Your task to perform on an android device: allow notifications from all sites in the chrome app Image 0: 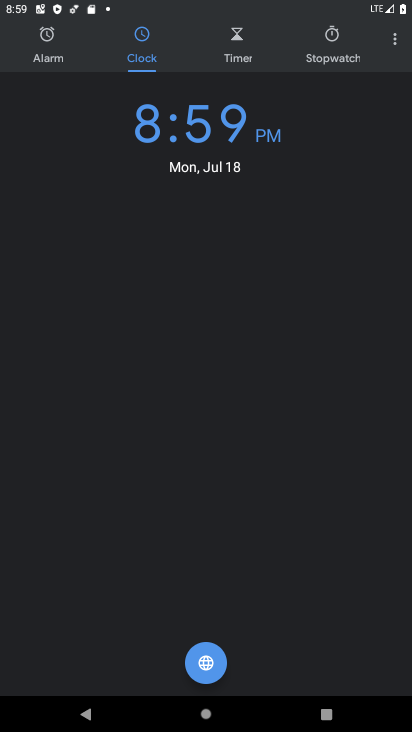
Step 0: press home button
Your task to perform on an android device: allow notifications from all sites in the chrome app Image 1: 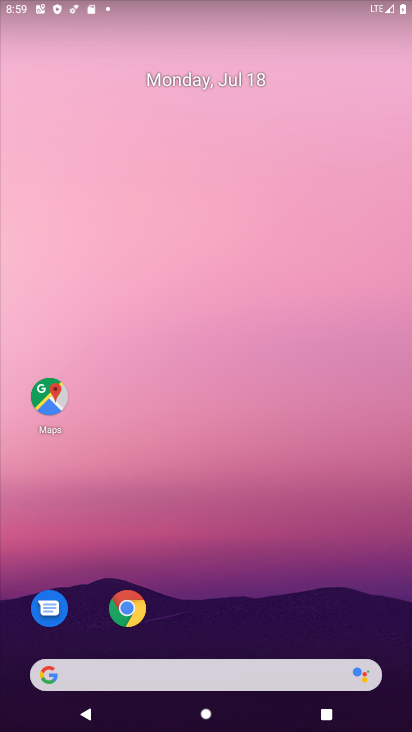
Step 1: drag from (35, 621) to (254, 60)
Your task to perform on an android device: allow notifications from all sites in the chrome app Image 2: 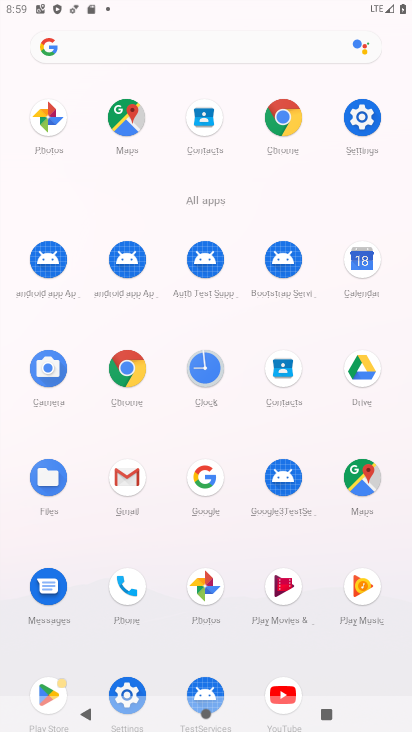
Step 2: click (127, 705)
Your task to perform on an android device: allow notifications from all sites in the chrome app Image 3: 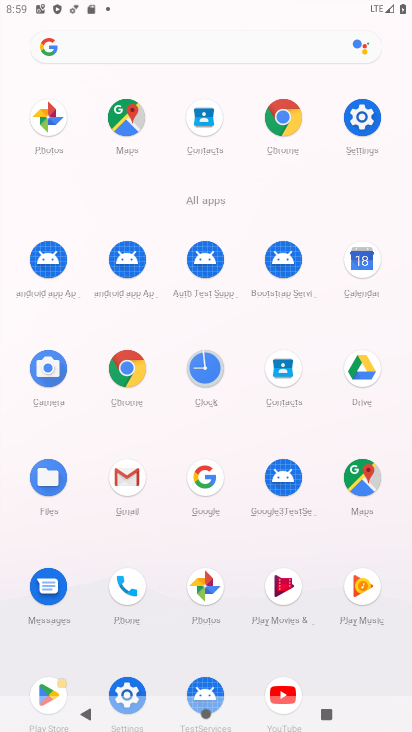
Step 3: click (282, 124)
Your task to perform on an android device: allow notifications from all sites in the chrome app Image 4: 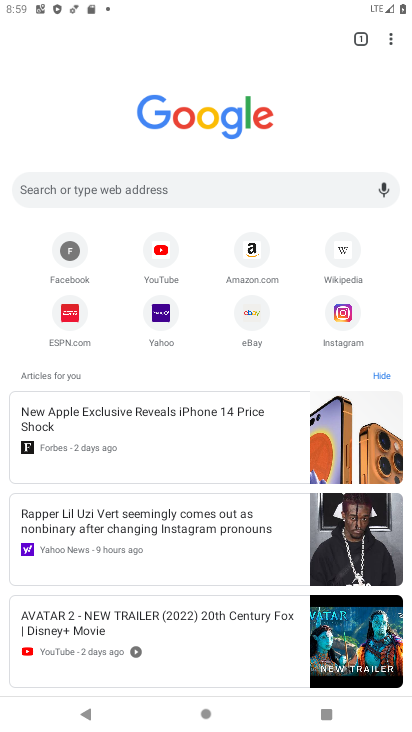
Step 4: click (388, 28)
Your task to perform on an android device: allow notifications from all sites in the chrome app Image 5: 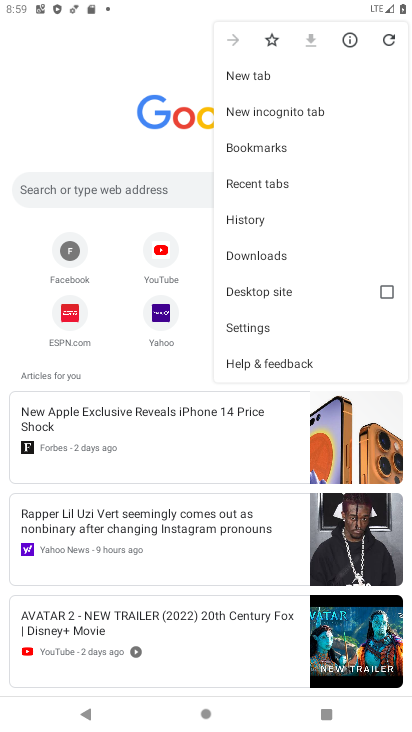
Step 5: click (240, 328)
Your task to perform on an android device: allow notifications from all sites in the chrome app Image 6: 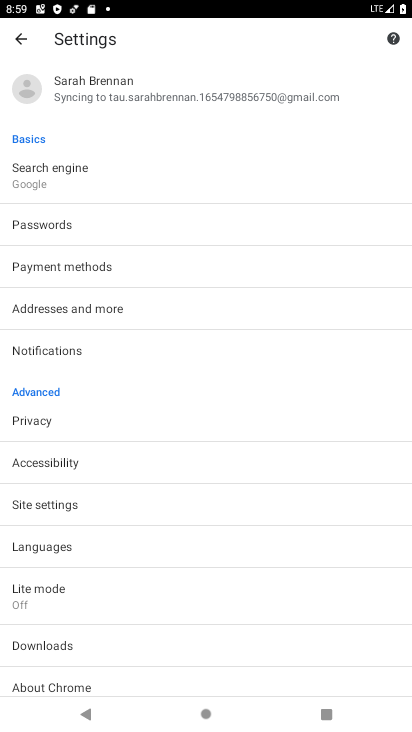
Step 6: click (71, 504)
Your task to perform on an android device: allow notifications from all sites in the chrome app Image 7: 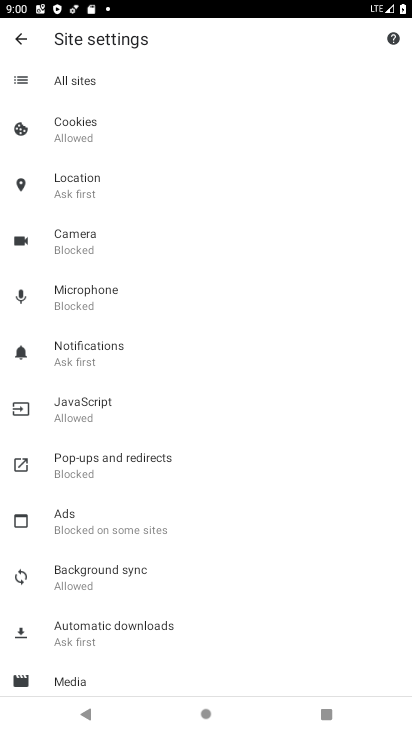
Step 7: click (88, 355)
Your task to perform on an android device: allow notifications from all sites in the chrome app Image 8: 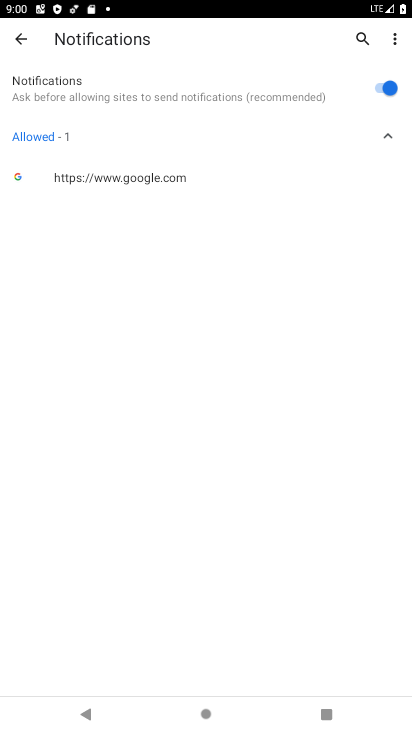
Step 8: task complete